Your task to perform on an android device: change the clock display to digital Image 0: 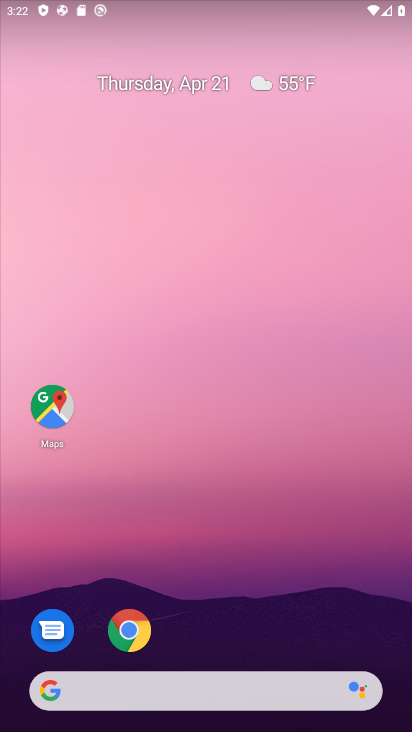
Step 0: drag from (322, 533) to (287, 9)
Your task to perform on an android device: change the clock display to digital Image 1: 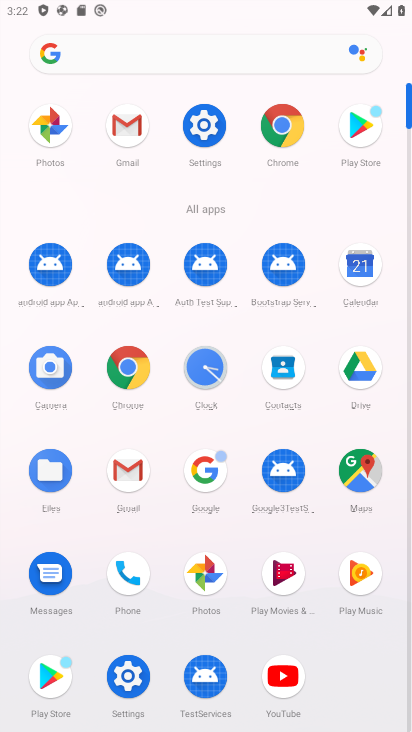
Step 1: click (204, 379)
Your task to perform on an android device: change the clock display to digital Image 2: 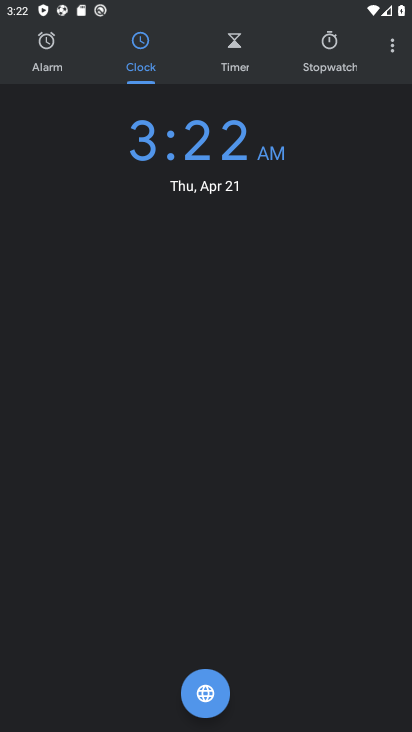
Step 2: click (395, 42)
Your task to perform on an android device: change the clock display to digital Image 3: 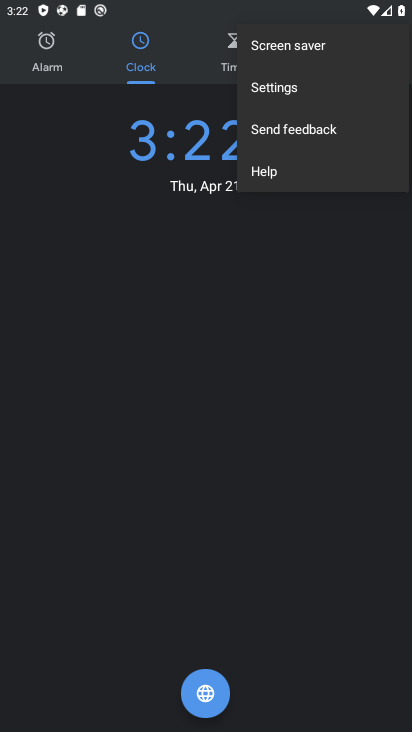
Step 3: click (304, 92)
Your task to perform on an android device: change the clock display to digital Image 4: 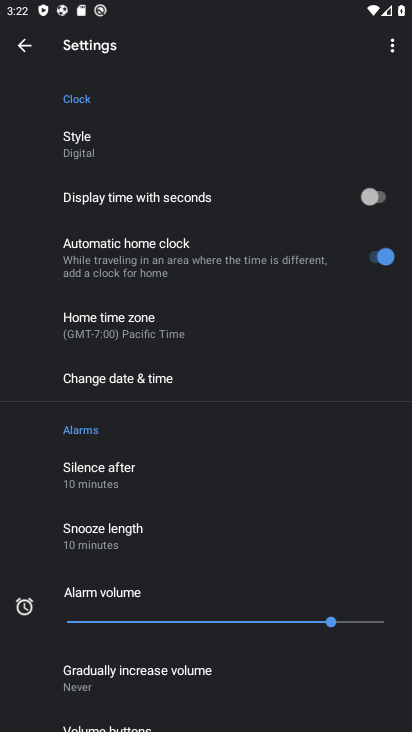
Step 4: task complete